Your task to perform on an android device: empty trash in the gmail app Image 0: 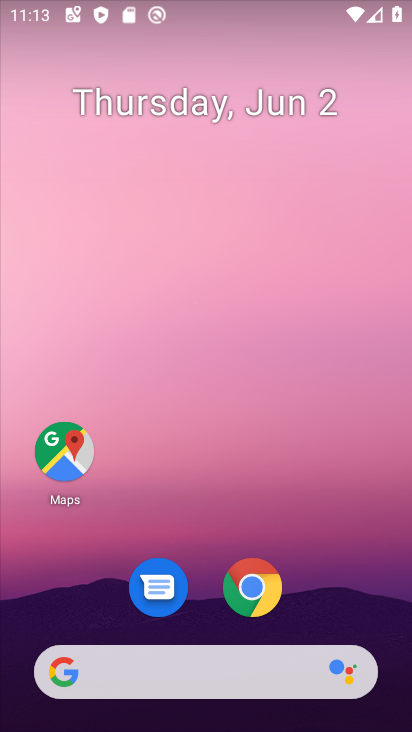
Step 0: drag from (333, 595) to (265, 261)
Your task to perform on an android device: empty trash in the gmail app Image 1: 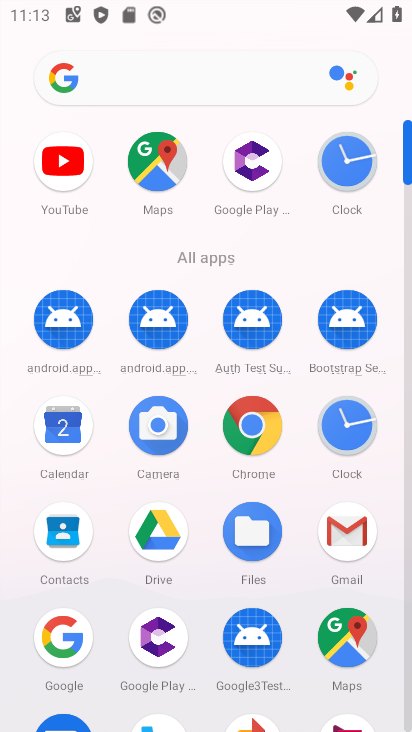
Step 1: click (354, 533)
Your task to perform on an android device: empty trash in the gmail app Image 2: 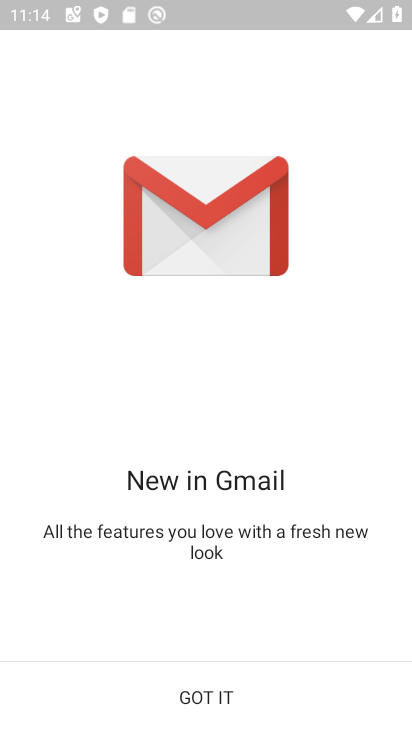
Step 2: click (191, 688)
Your task to perform on an android device: empty trash in the gmail app Image 3: 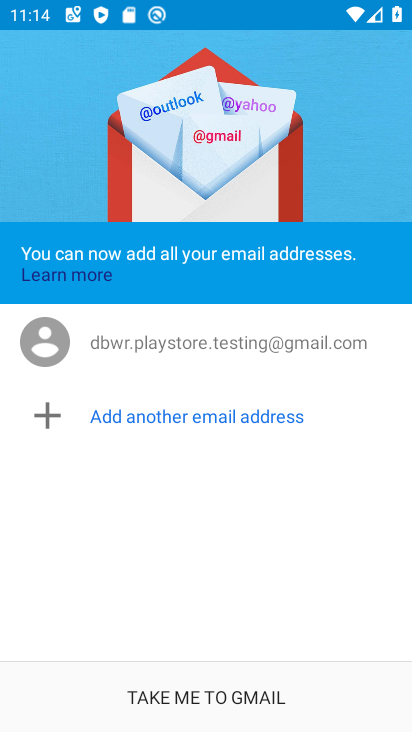
Step 3: click (191, 688)
Your task to perform on an android device: empty trash in the gmail app Image 4: 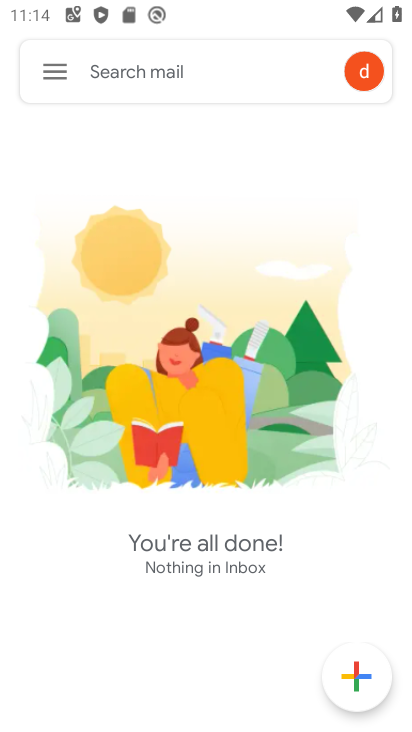
Step 4: click (50, 92)
Your task to perform on an android device: empty trash in the gmail app Image 5: 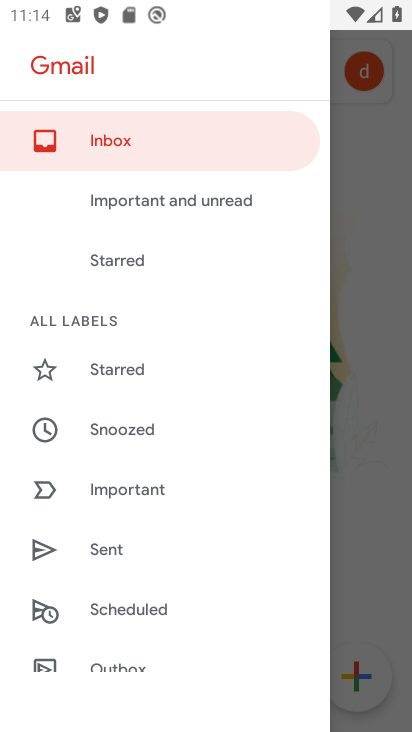
Step 5: drag from (106, 636) to (120, 245)
Your task to perform on an android device: empty trash in the gmail app Image 6: 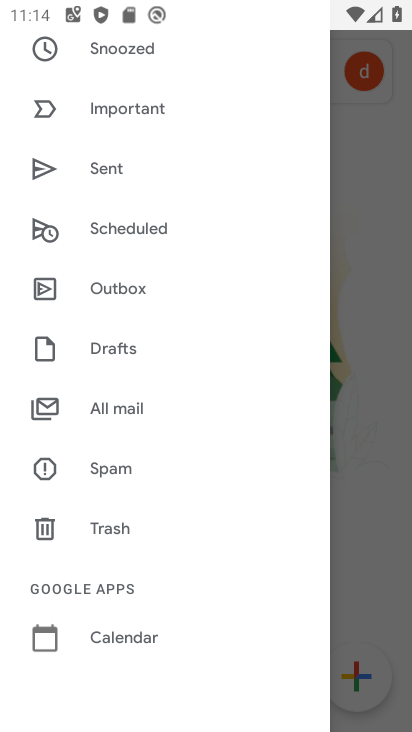
Step 6: click (120, 536)
Your task to perform on an android device: empty trash in the gmail app Image 7: 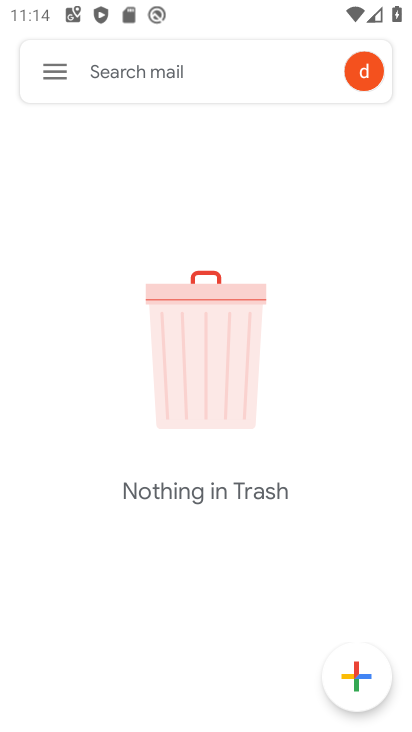
Step 7: task complete